Your task to perform on an android device: turn on javascript in the chrome app Image 0: 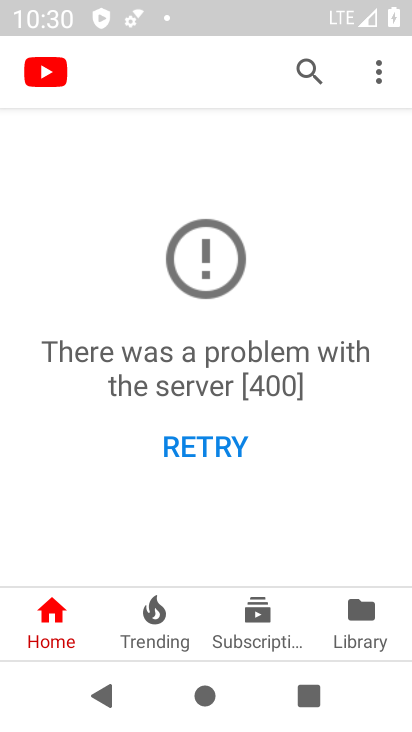
Step 0: press home button
Your task to perform on an android device: turn on javascript in the chrome app Image 1: 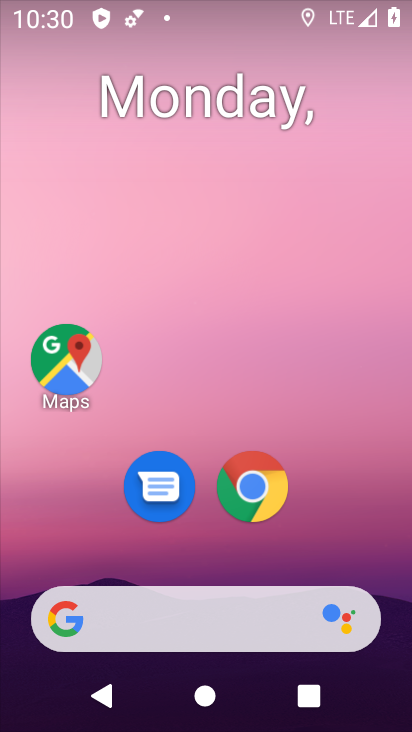
Step 1: click (252, 486)
Your task to perform on an android device: turn on javascript in the chrome app Image 2: 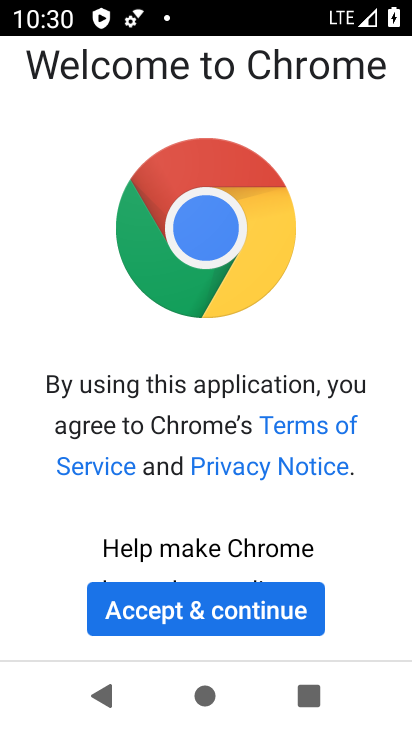
Step 2: click (214, 613)
Your task to perform on an android device: turn on javascript in the chrome app Image 3: 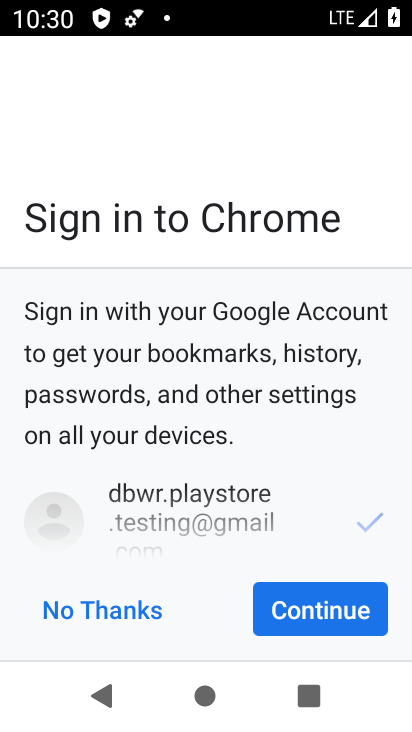
Step 3: click (73, 617)
Your task to perform on an android device: turn on javascript in the chrome app Image 4: 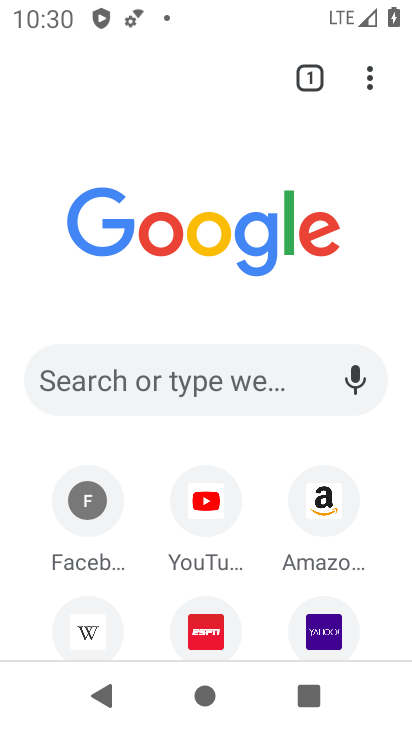
Step 4: click (371, 76)
Your task to perform on an android device: turn on javascript in the chrome app Image 5: 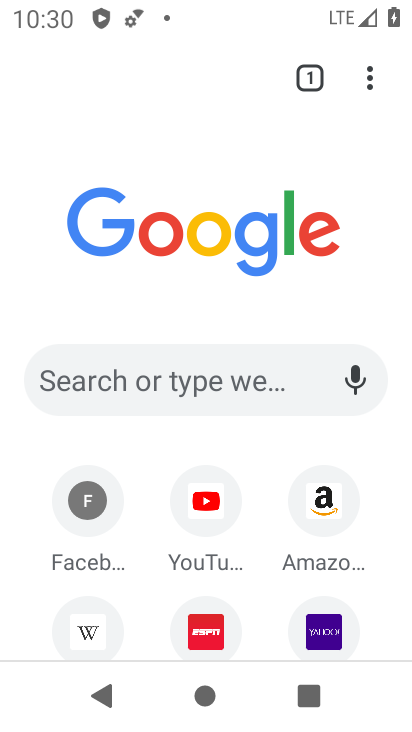
Step 5: click (377, 75)
Your task to perform on an android device: turn on javascript in the chrome app Image 6: 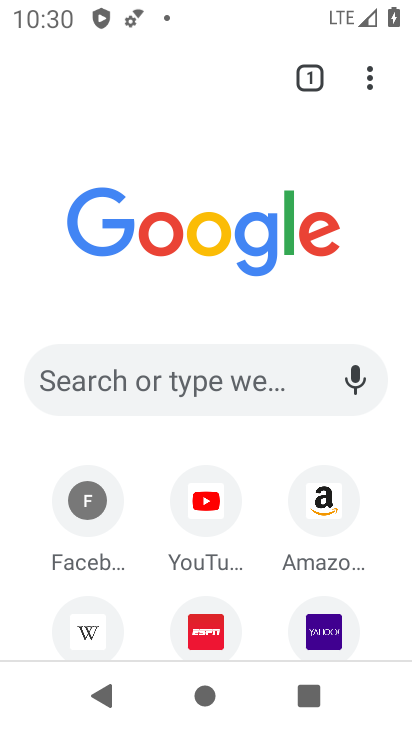
Step 6: click (359, 95)
Your task to perform on an android device: turn on javascript in the chrome app Image 7: 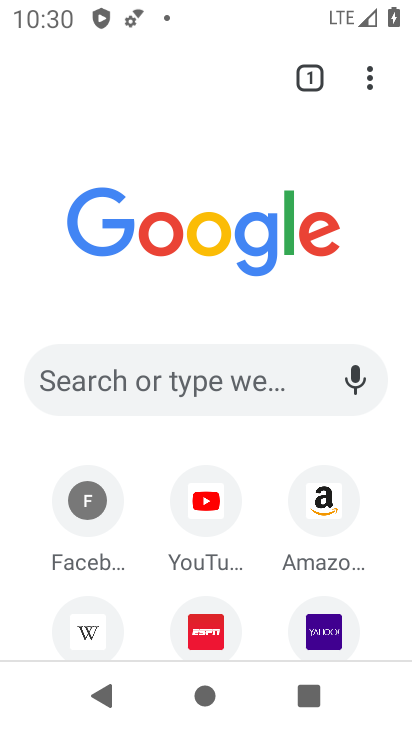
Step 7: click (370, 84)
Your task to perform on an android device: turn on javascript in the chrome app Image 8: 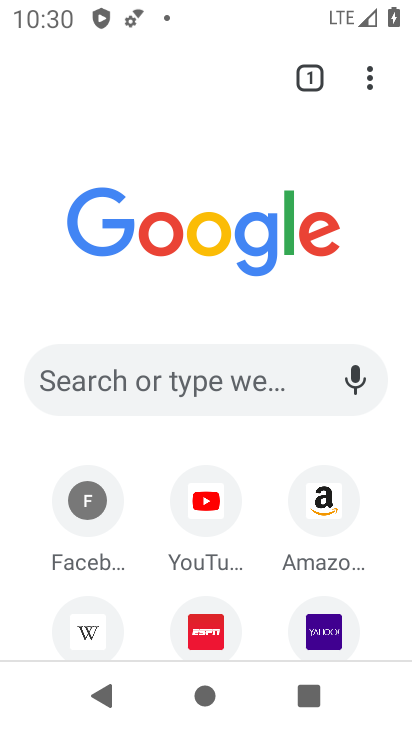
Step 8: click (371, 83)
Your task to perform on an android device: turn on javascript in the chrome app Image 9: 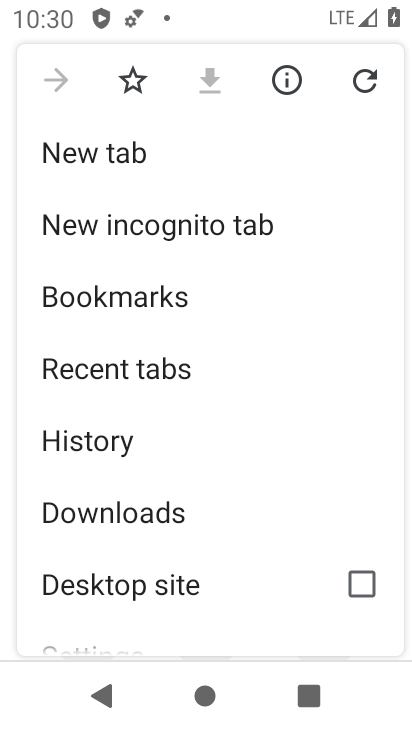
Step 9: drag from (85, 527) to (286, 132)
Your task to perform on an android device: turn on javascript in the chrome app Image 10: 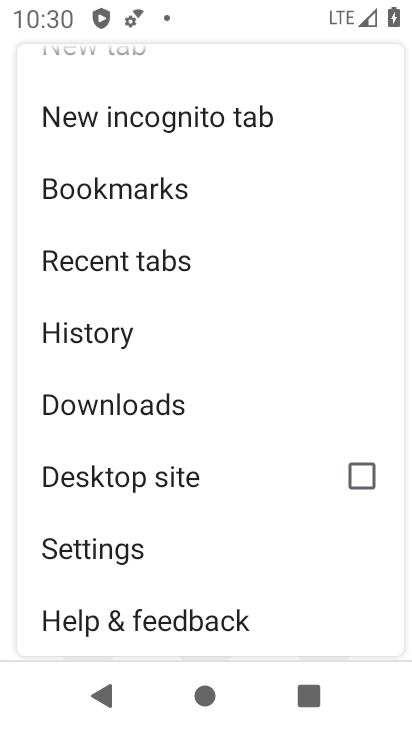
Step 10: click (91, 550)
Your task to perform on an android device: turn on javascript in the chrome app Image 11: 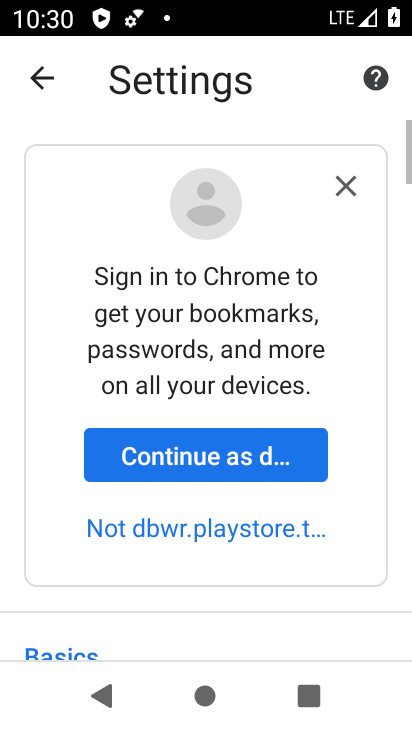
Step 11: click (337, 191)
Your task to perform on an android device: turn on javascript in the chrome app Image 12: 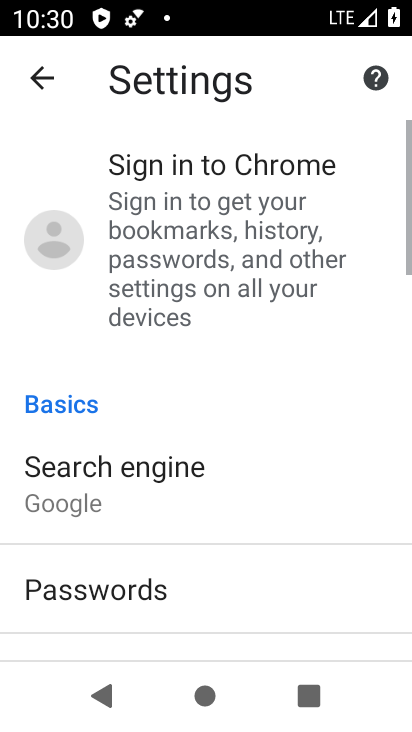
Step 12: drag from (9, 467) to (283, 161)
Your task to perform on an android device: turn on javascript in the chrome app Image 13: 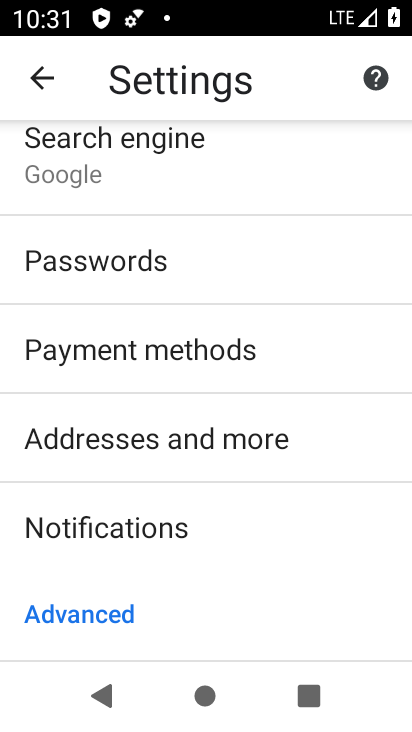
Step 13: drag from (134, 583) to (316, 287)
Your task to perform on an android device: turn on javascript in the chrome app Image 14: 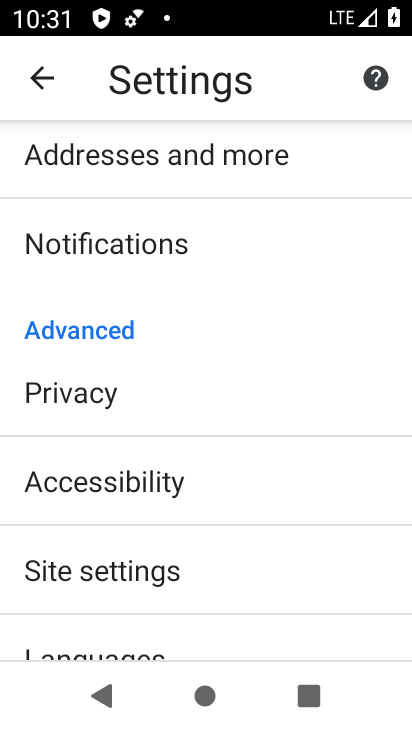
Step 14: click (95, 570)
Your task to perform on an android device: turn on javascript in the chrome app Image 15: 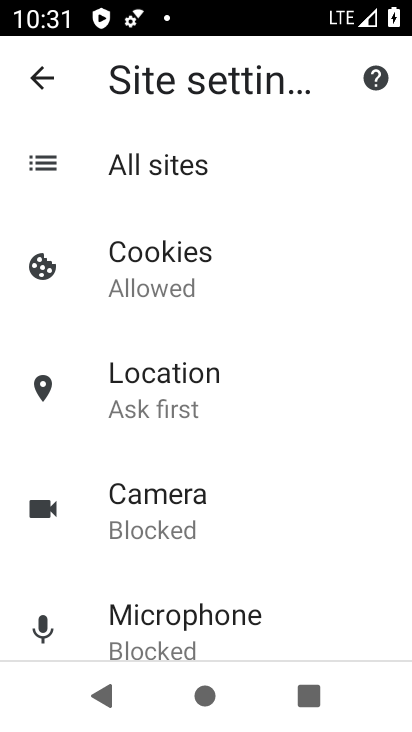
Step 15: drag from (27, 489) to (228, 247)
Your task to perform on an android device: turn on javascript in the chrome app Image 16: 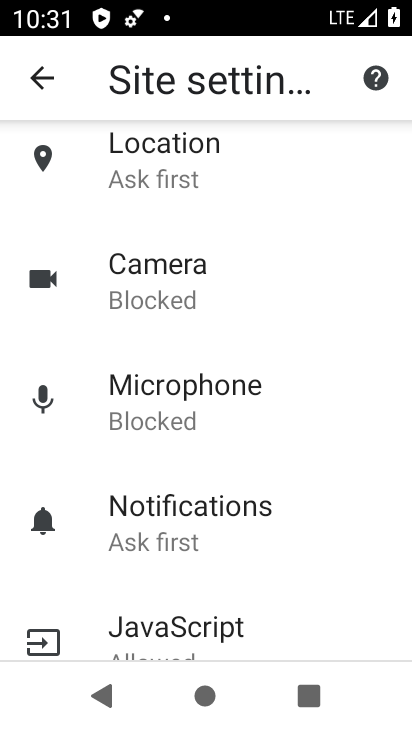
Step 16: click (105, 634)
Your task to perform on an android device: turn on javascript in the chrome app Image 17: 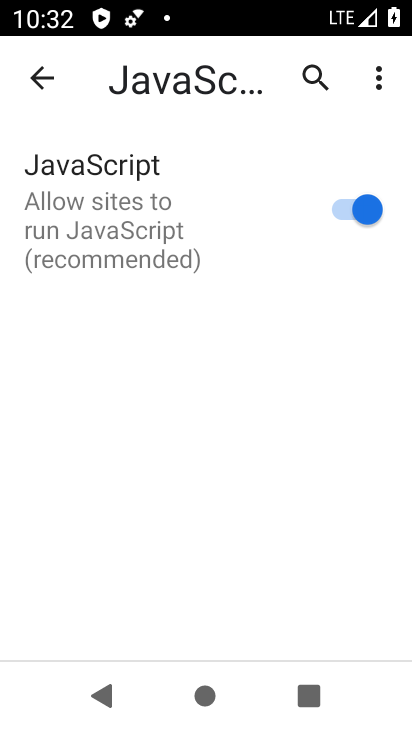
Step 17: task complete